Your task to perform on an android device: change text size in settings app Image 0: 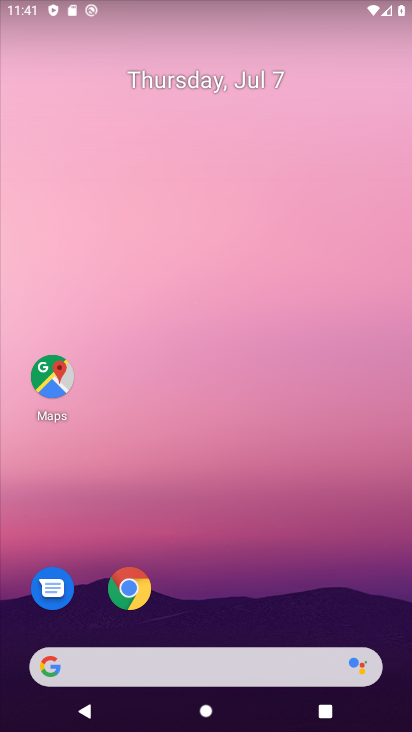
Step 0: drag from (179, 556) to (274, 160)
Your task to perform on an android device: change text size in settings app Image 1: 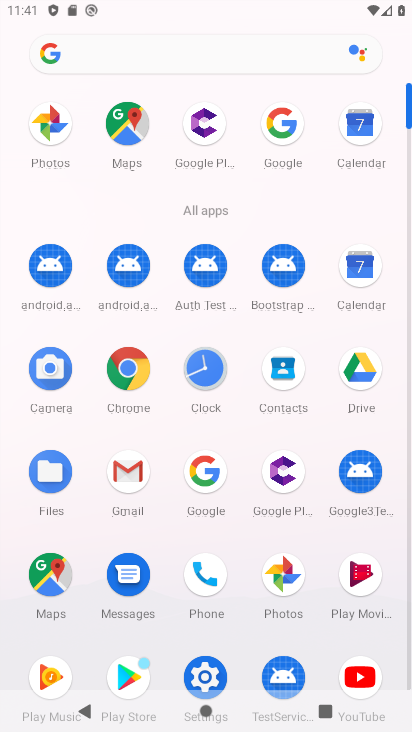
Step 1: click (201, 670)
Your task to perform on an android device: change text size in settings app Image 2: 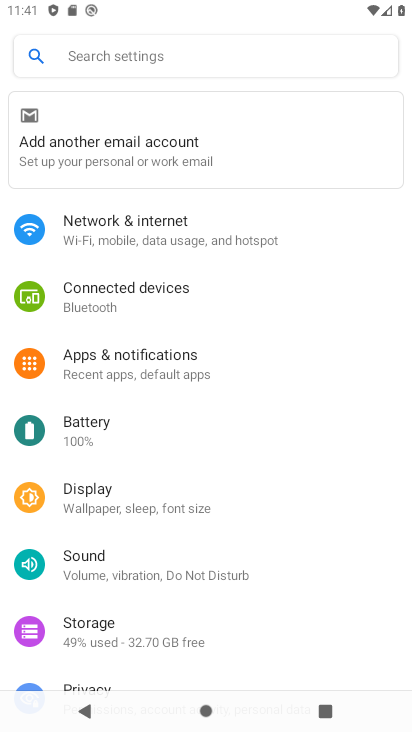
Step 2: drag from (137, 582) to (166, 253)
Your task to perform on an android device: change text size in settings app Image 3: 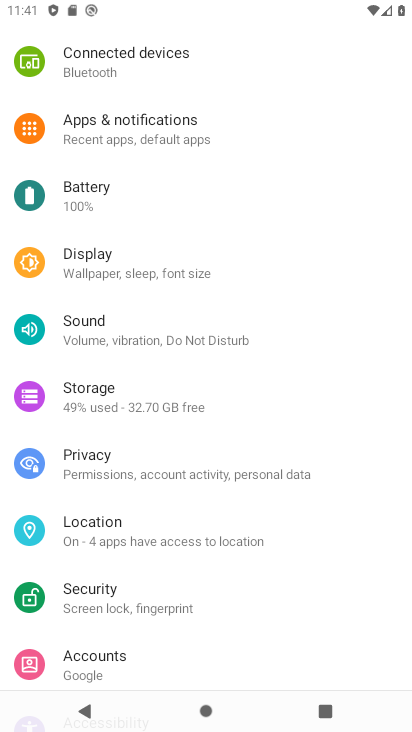
Step 3: drag from (110, 665) to (171, 336)
Your task to perform on an android device: change text size in settings app Image 4: 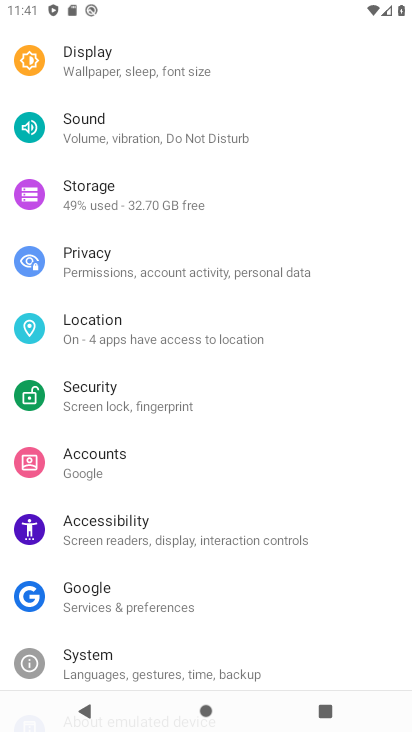
Step 4: click (105, 524)
Your task to perform on an android device: change text size in settings app Image 5: 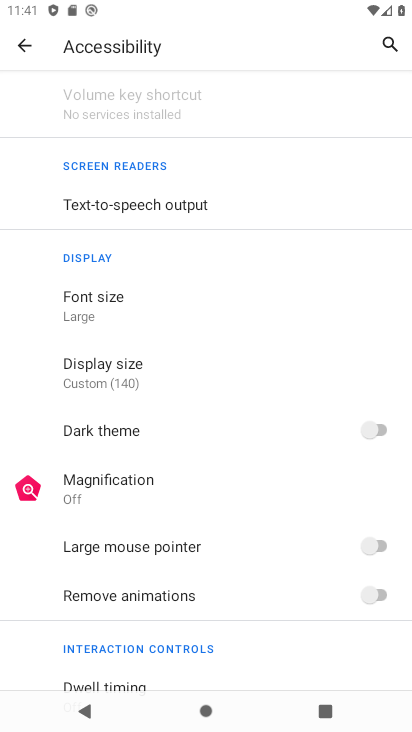
Step 5: click (94, 313)
Your task to perform on an android device: change text size in settings app Image 6: 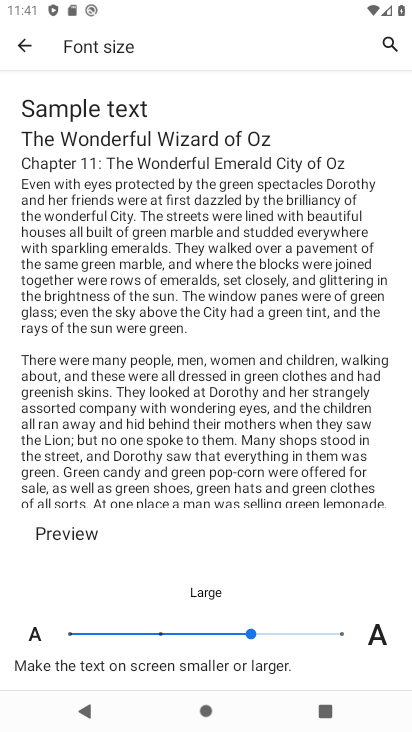
Step 6: click (204, 632)
Your task to perform on an android device: change text size in settings app Image 7: 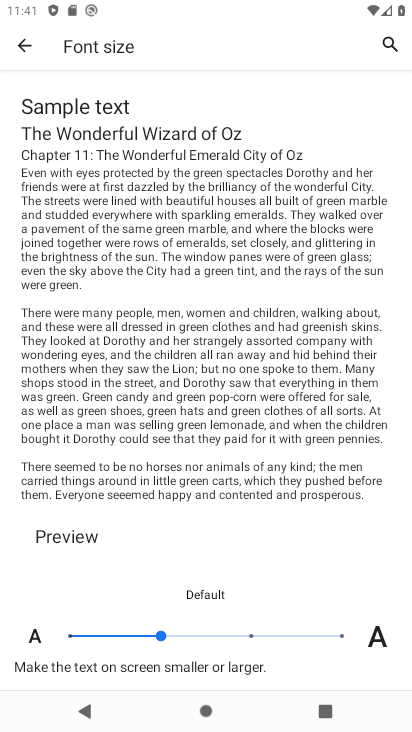
Step 7: click (342, 638)
Your task to perform on an android device: change text size in settings app Image 8: 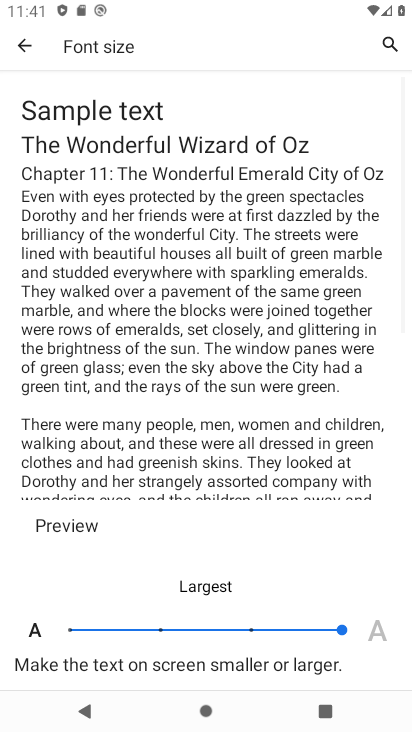
Step 8: task complete